Your task to perform on an android device: What's the weather going to be tomorrow? Image 0: 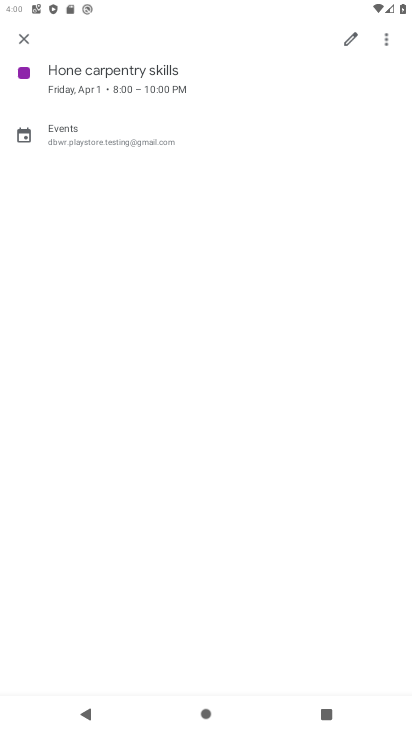
Step 0: press home button
Your task to perform on an android device: What's the weather going to be tomorrow? Image 1: 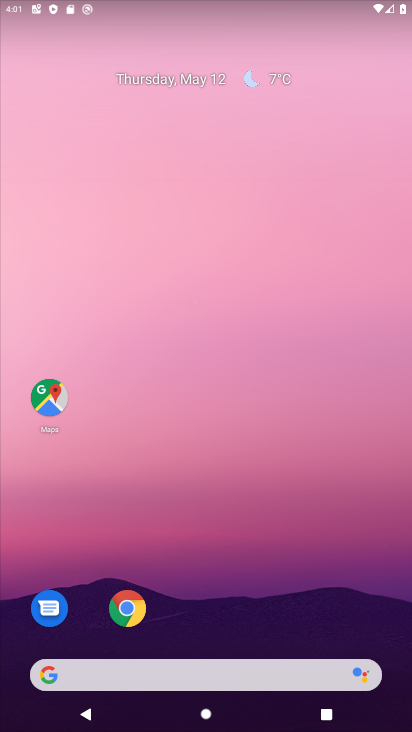
Step 1: click (284, 84)
Your task to perform on an android device: What's the weather going to be tomorrow? Image 2: 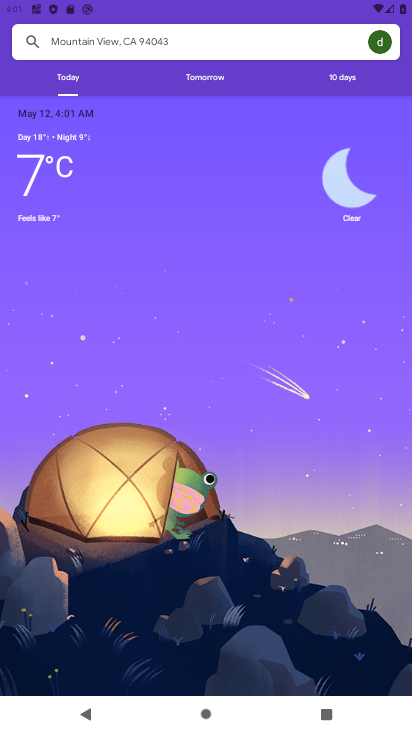
Step 2: click (212, 92)
Your task to perform on an android device: What's the weather going to be tomorrow? Image 3: 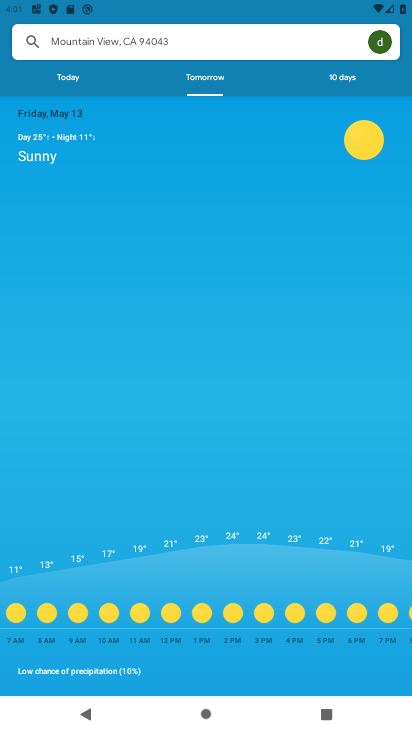
Step 3: click (212, 92)
Your task to perform on an android device: What's the weather going to be tomorrow? Image 4: 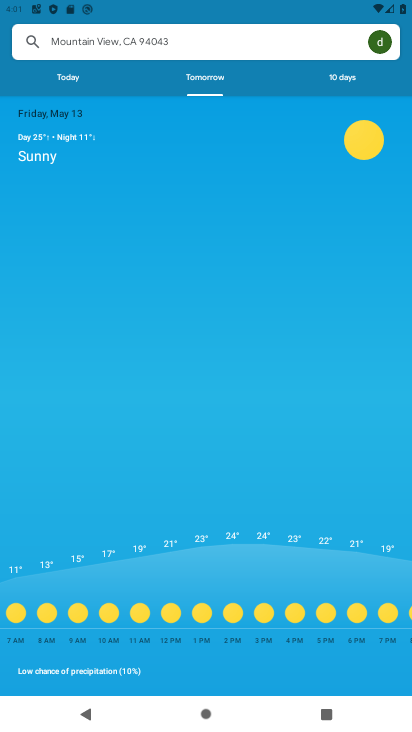
Step 4: task complete